Your task to perform on an android device: open chrome privacy settings Image 0: 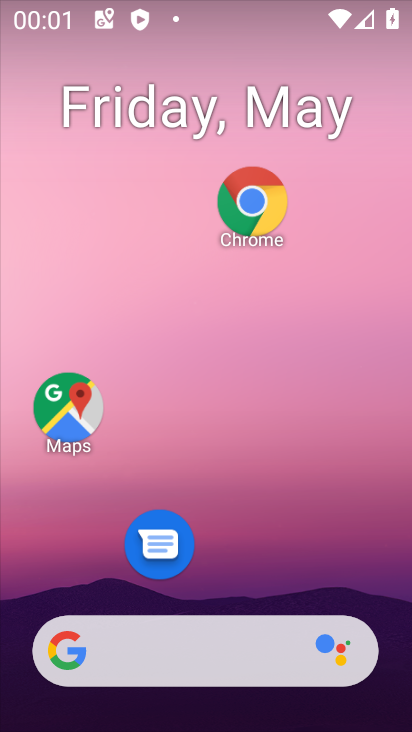
Step 0: drag from (215, 581) to (230, 9)
Your task to perform on an android device: open chrome privacy settings Image 1: 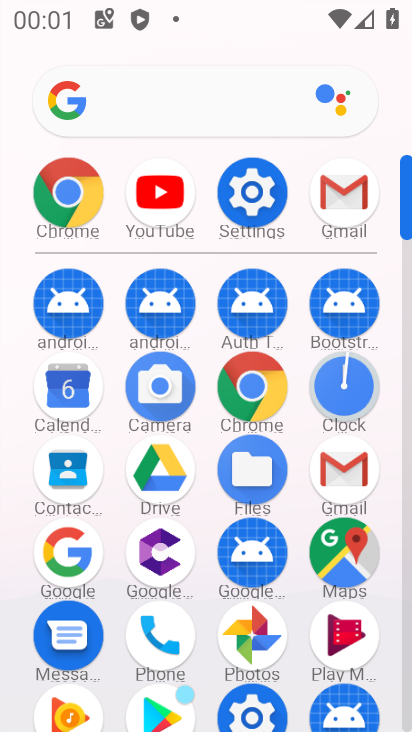
Step 1: click (253, 191)
Your task to perform on an android device: open chrome privacy settings Image 2: 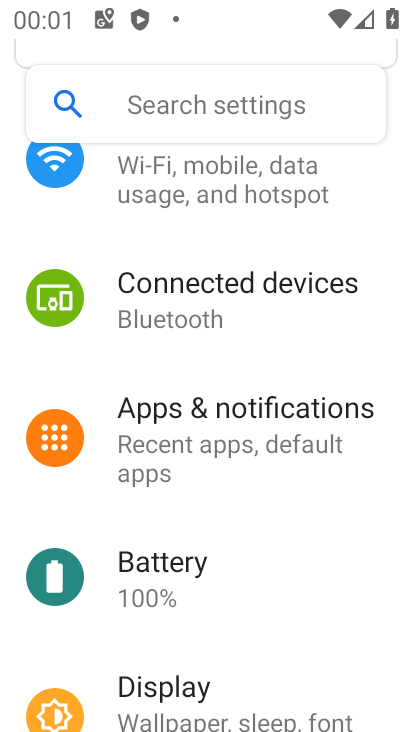
Step 2: drag from (221, 647) to (256, 135)
Your task to perform on an android device: open chrome privacy settings Image 3: 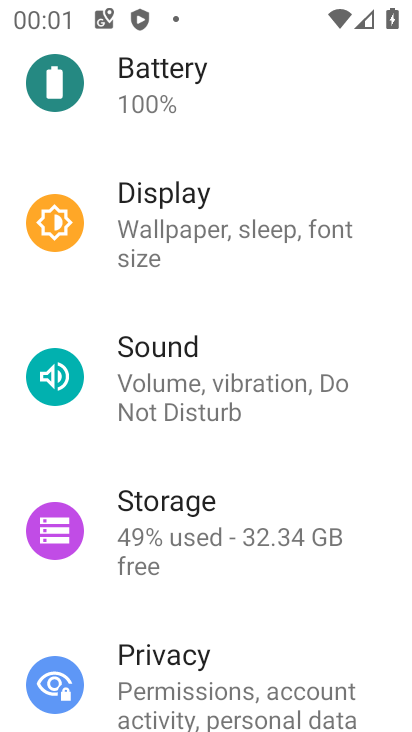
Step 3: click (203, 669)
Your task to perform on an android device: open chrome privacy settings Image 4: 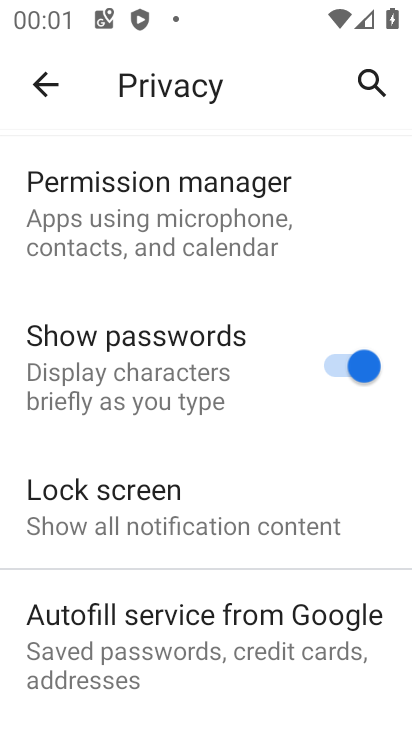
Step 4: drag from (206, 607) to (235, 172)
Your task to perform on an android device: open chrome privacy settings Image 5: 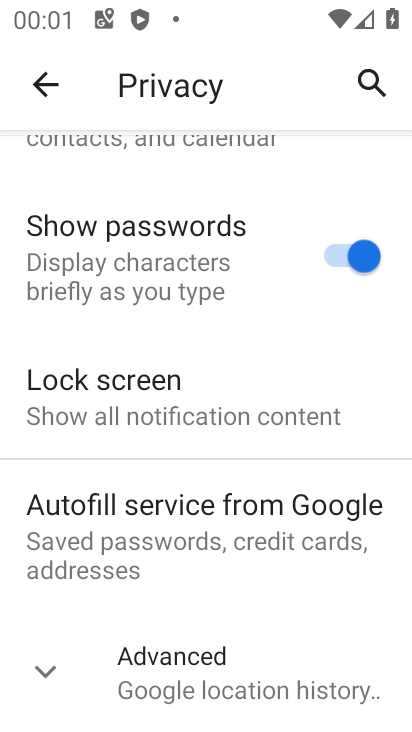
Step 5: click (43, 661)
Your task to perform on an android device: open chrome privacy settings Image 6: 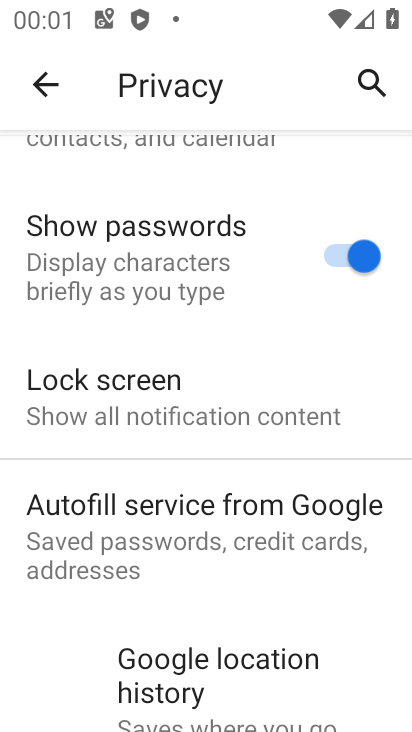
Step 6: task complete